Your task to perform on an android device: Go to battery settings Image 0: 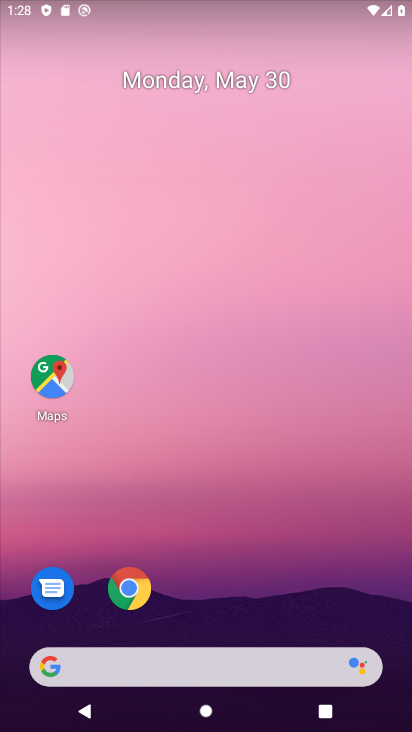
Step 0: drag from (273, 502) to (204, 5)
Your task to perform on an android device: Go to battery settings Image 1: 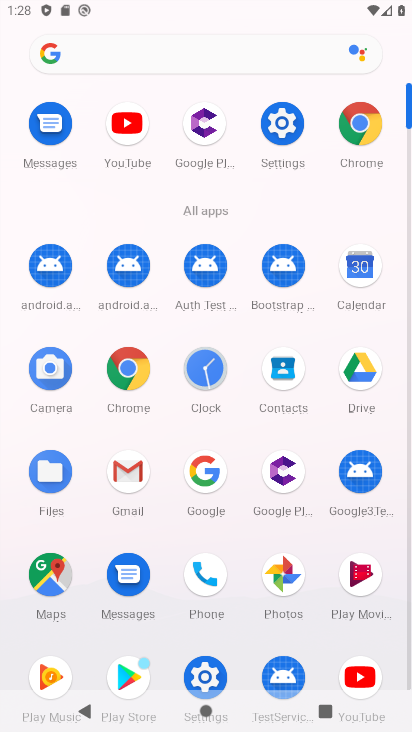
Step 1: click (292, 137)
Your task to perform on an android device: Go to battery settings Image 2: 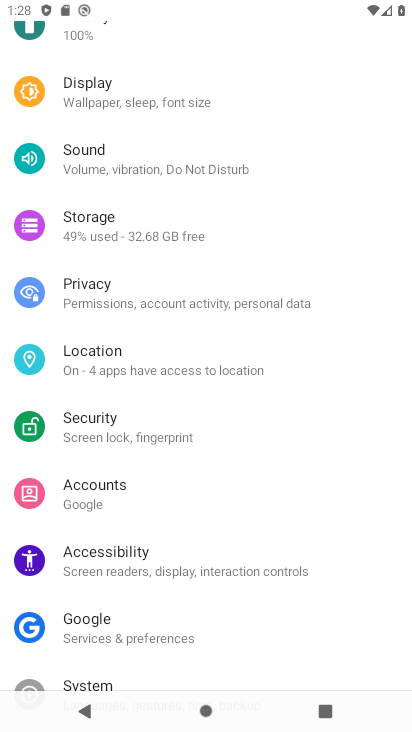
Step 2: drag from (199, 183) to (150, 574)
Your task to perform on an android device: Go to battery settings Image 3: 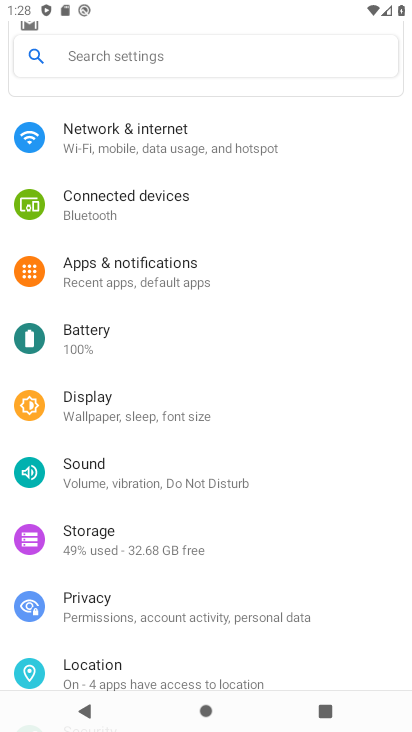
Step 3: click (124, 334)
Your task to perform on an android device: Go to battery settings Image 4: 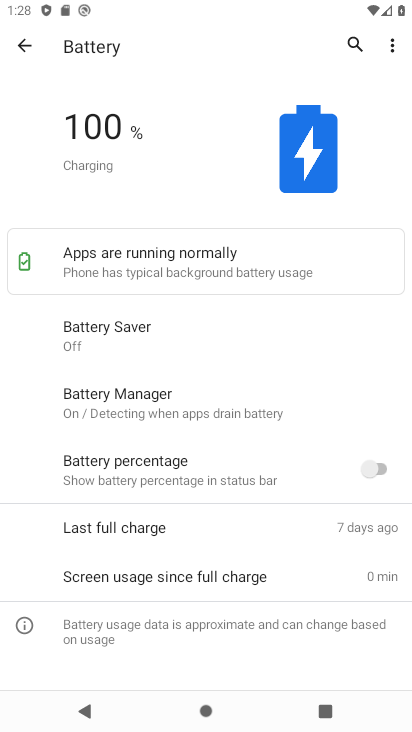
Step 4: task complete